Your task to perform on an android device: Open the map Image 0: 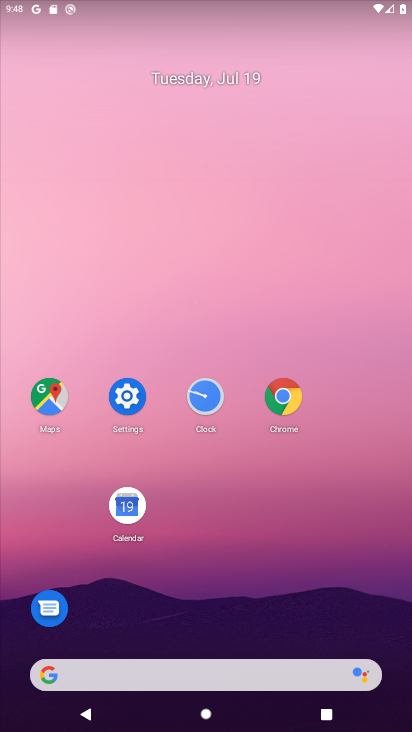
Step 0: click (34, 397)
Your task to perform on an android device: Open the map Image 1: 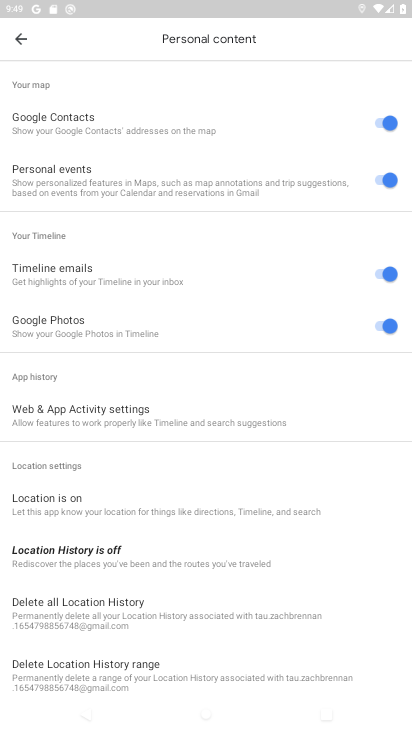
Step 1: click (24, 38)
Your task to perform on an android device: Open the map Image 2: 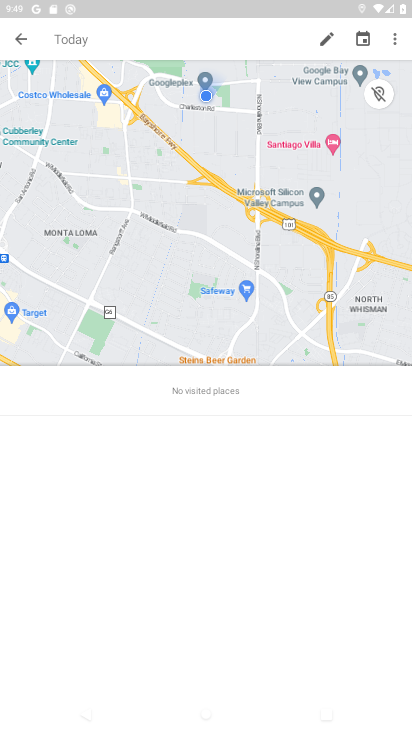
Step 2: task complete